Your task to perform on an android device: Go to sound settings Image 0: 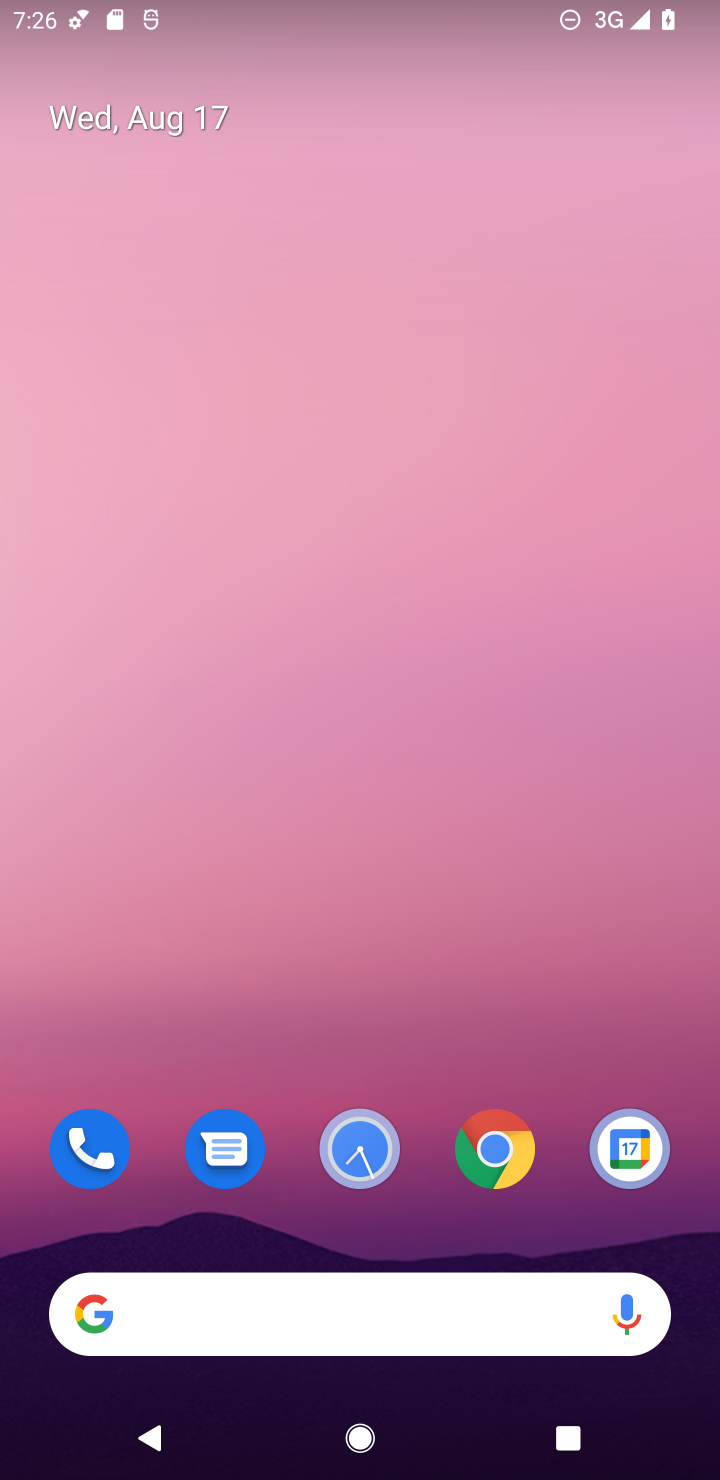
Step 0: drag from (408, 1238) to (414, 120)
Your task to perform on an android device: Go to sound settings Image 1: 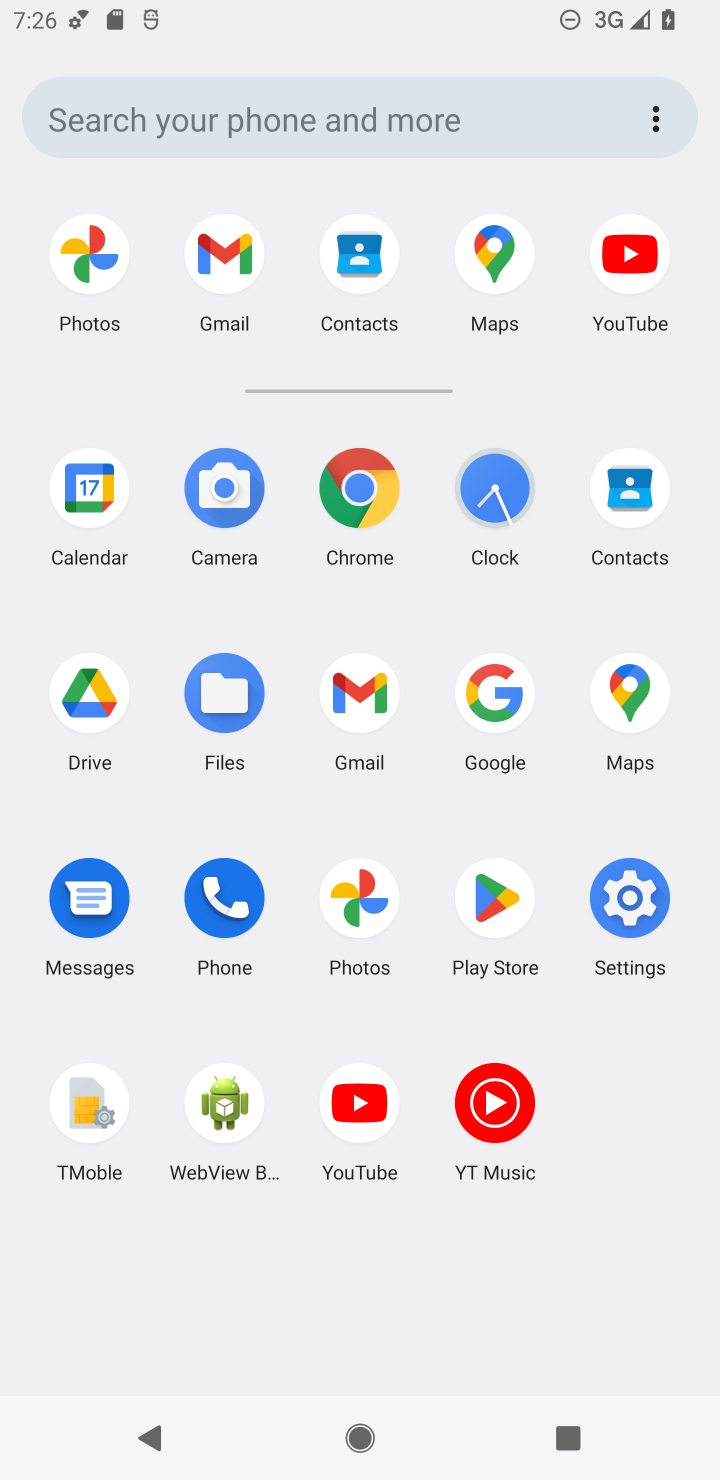
Step 1: click (631, 899)
Your task to perform on an android device: Go to sound settings Image 2: 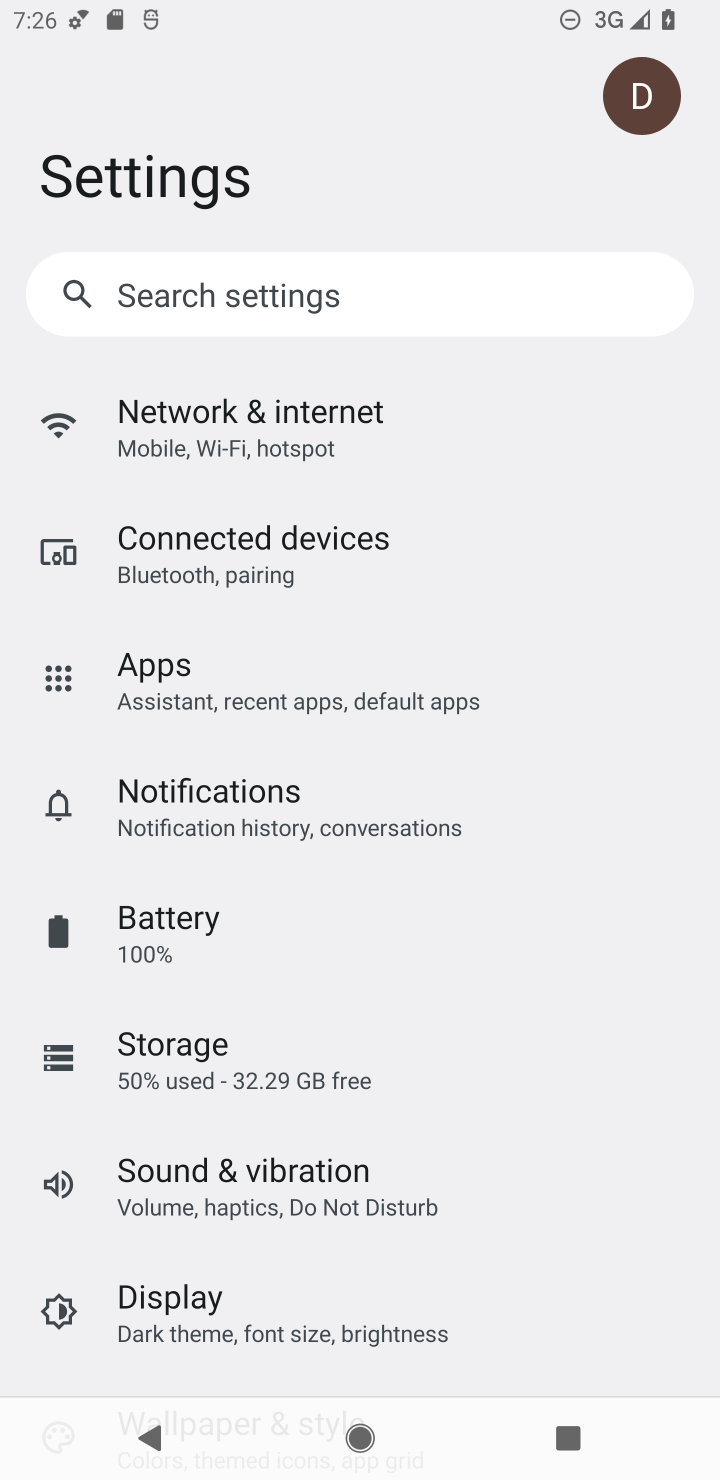
Step 2: click (180, 1167)
Your task to perform on an android device: Go to sound settings Image 3: 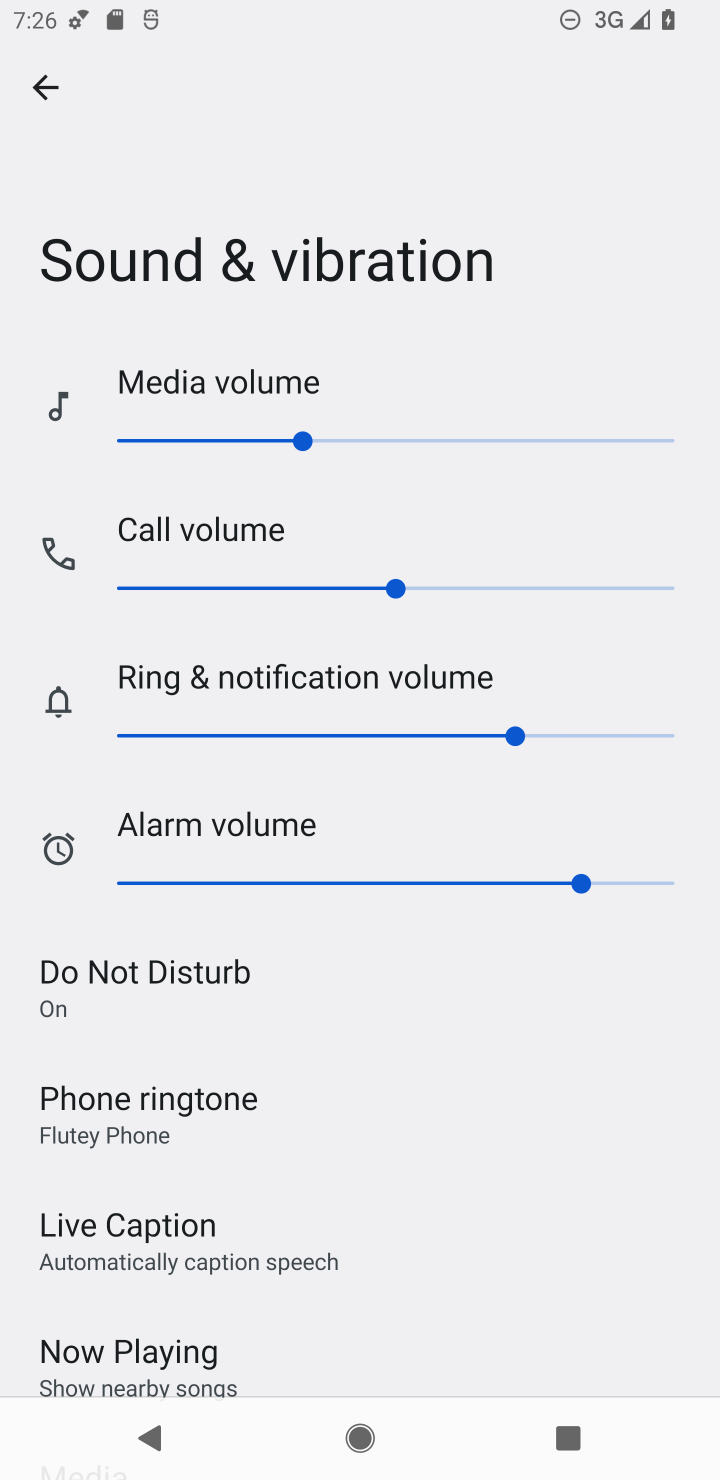
Step 3: task complete